Your task to perform on an android device: Do I have any events tomorrow? Image 0: 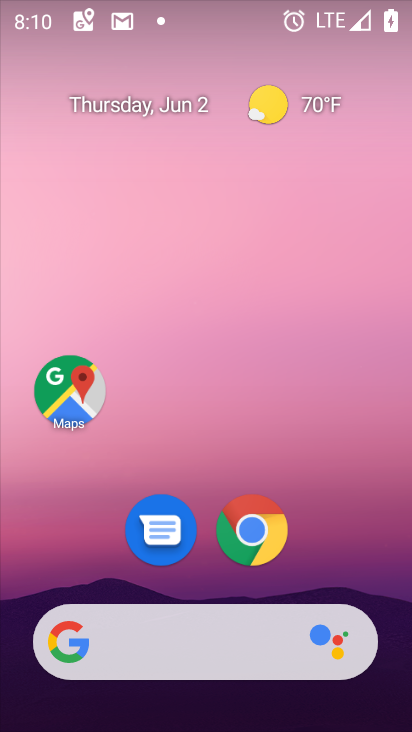
Step 0: drag from (186, 616) to (224, 316)
Your task to perform on an android device: Do I have any events tomorrow? Image 1: 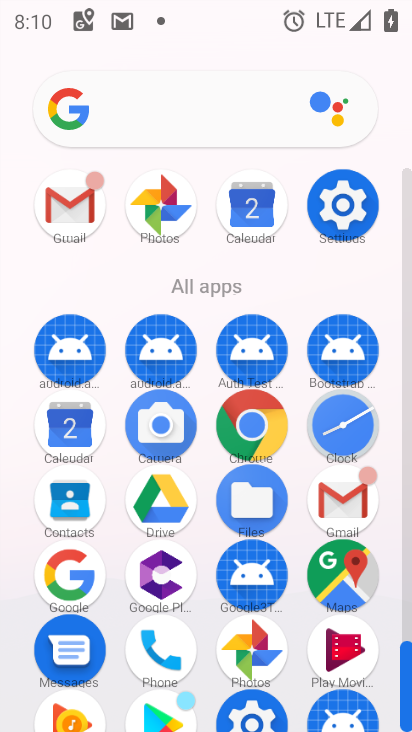
Step 1: click (238, 218)
Your task to perform on an android device: Do I have any events tomorrow? Image 2: 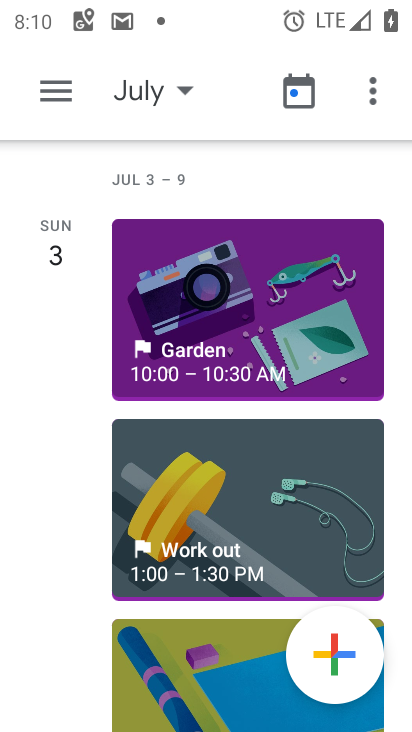
Step 2: click (65, 88)
Your task to perform on an android device: Do I have any events tomorrow? Image 3: 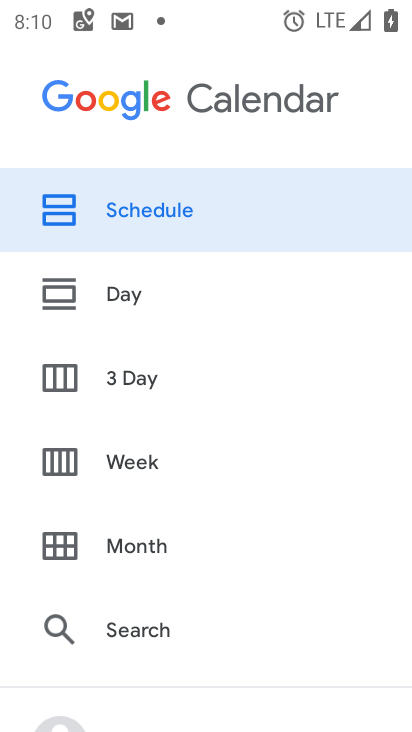
Step 3: click (144, 207)
Your task to perform on an android device: Do I have any events tomorrow? Image 4: 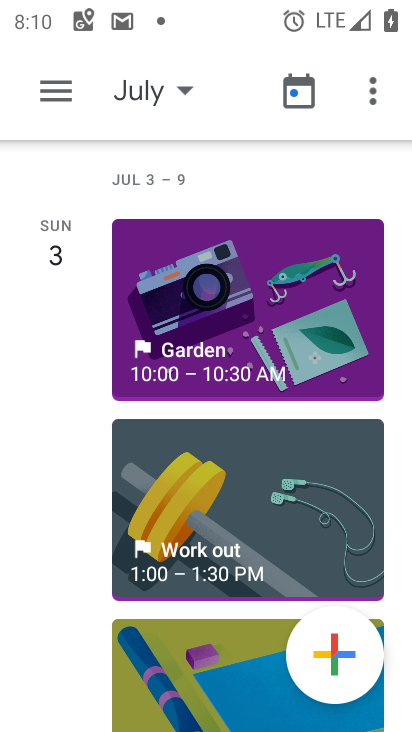
Step 4: click (165, 93)
Your task to perform on an android device: Do I have any events tomorrow? Image 5: 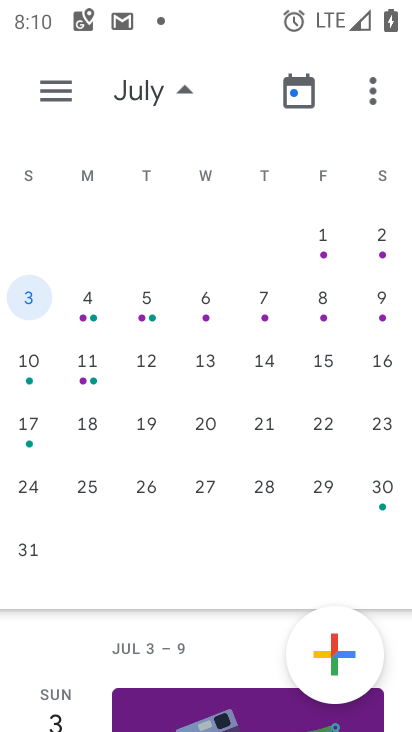
Step 5: drag from (21, 345) to (373, 386)
Your task to perform on an android device: Do I have any events tomorrow? Image 6: 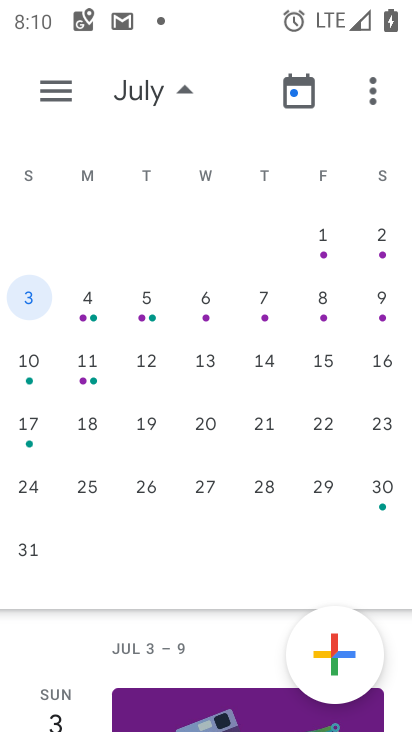
Step 6: drag from (115, 234) to (401, 282)
Your task to perform on an android device: Do I have any events tomorrow? Image 7: 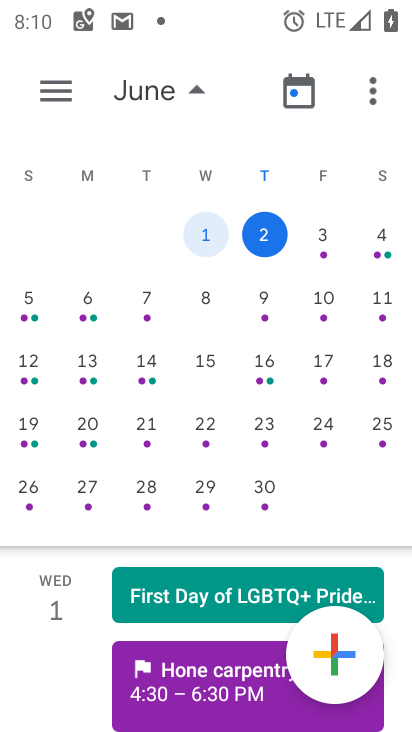
Step 7: click (324, 237)
Your task to perform on an android device: Do I have any events tomorrow? Image 8: 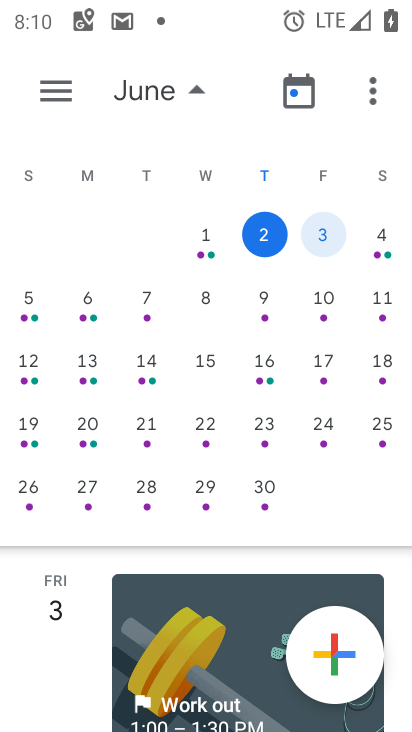
Step 8: task complete